Your task to perform on an android device: Search for Italian restaurants on Maps Image 0: 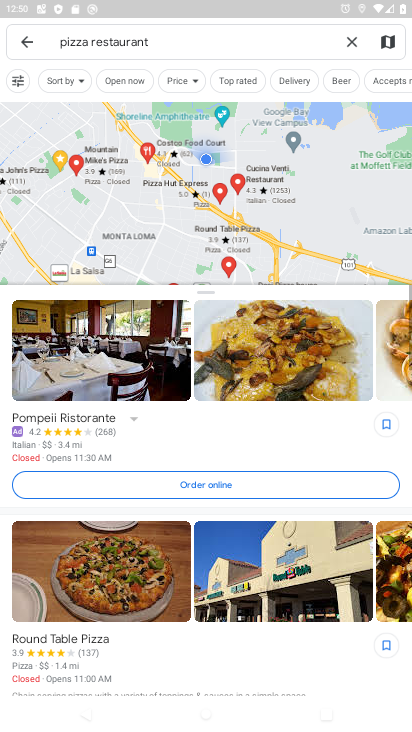
Step 0: press home button
Your task to perform on an android device: Search for Italian restaurants on Maps Image 1: 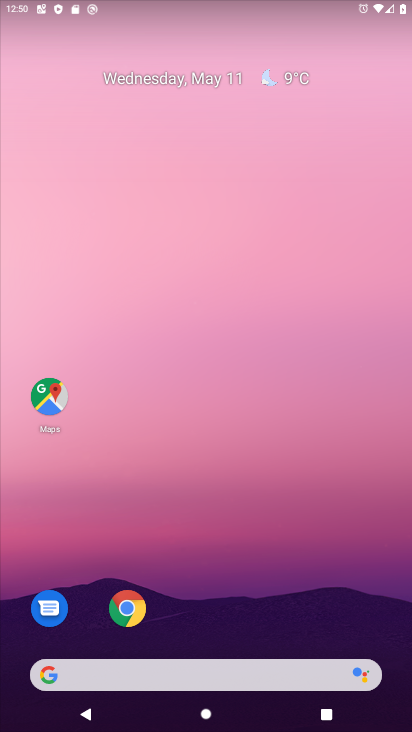
Step 1: drag from (175, 683) to (219, 372)
Your task to perform on an android device: Search for Italian restaurants on Maps Image 2: 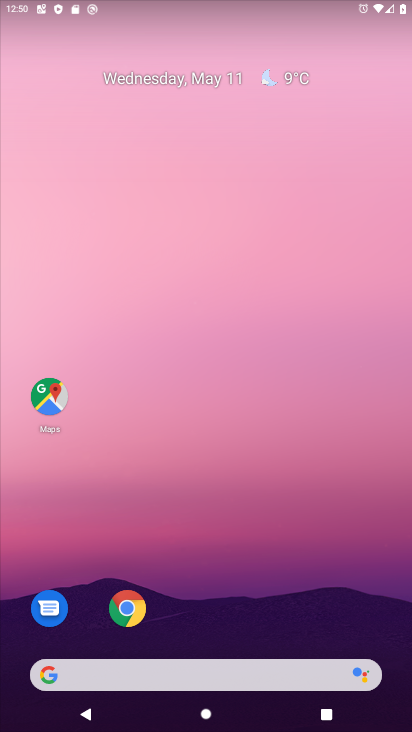
Step 2: drag from (235, 698) to (277, 524)
Your task to perform on an android device: Search for Italian restaurants on Maps Image 3: 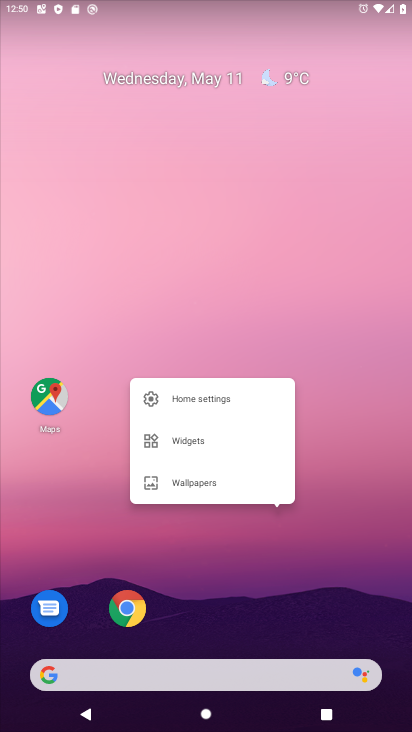
Step 3: drag from (271, 626) to (239, 311)
Your task to perform on an android device: Search for Italian restaurants on Maps Image 4: 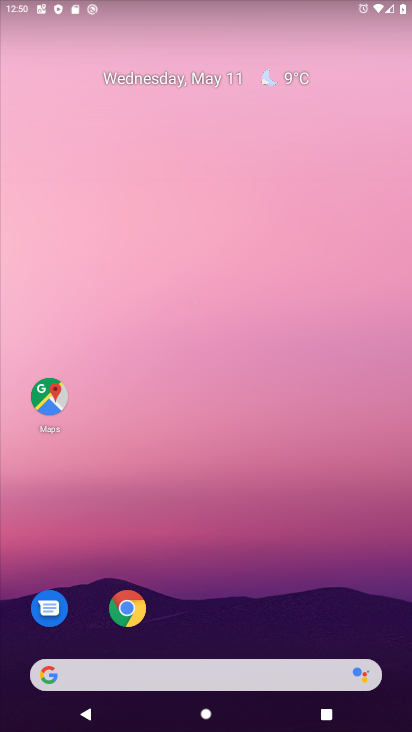
Step 4: drag from (182, 628) to (236, 152)
Your task to perform on an android device: Search for Italian restaurants on Maps Image 5: 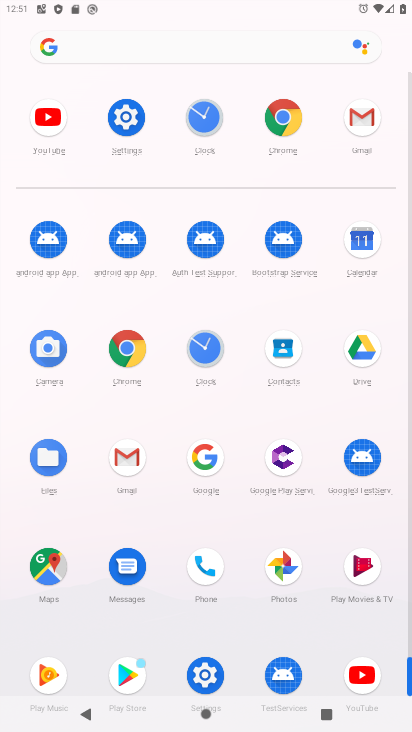
Step 5: click (60, 570)
Your task to perform on an android device: Search for Italian restaurants on Maps Image 6: 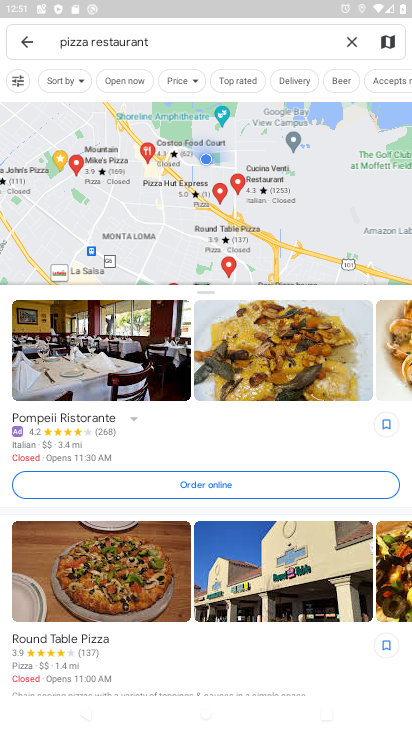
Step 6: click (345, 44)
Your task to perform on an android device: Search for Italian restaurants on Maps Image 7: 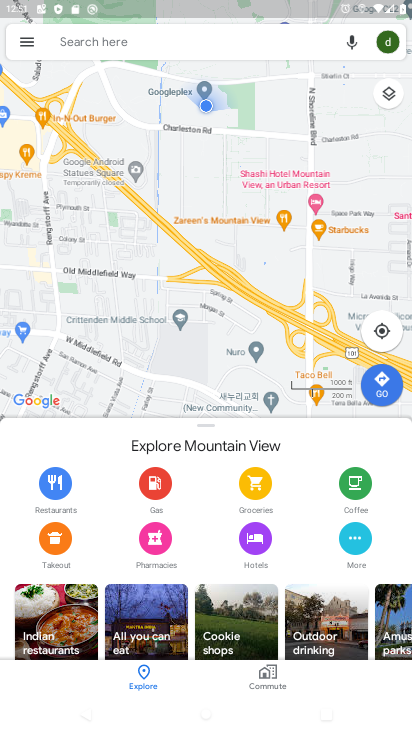
Step 7: click (267, 44)
Your task to perform on an android device: Search for Italian restaurants on Maps Image 8: 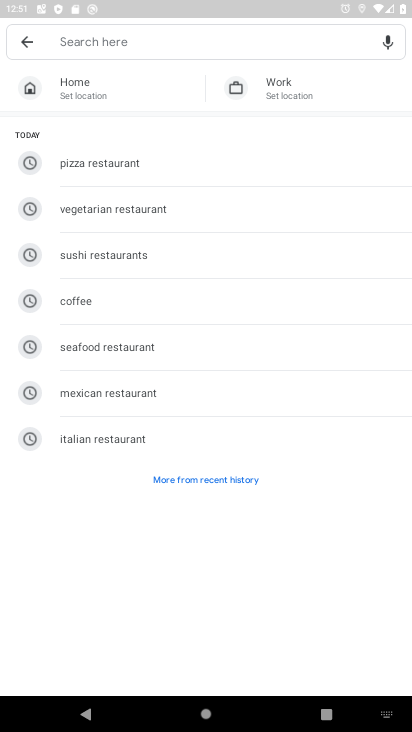
Step 8: click (100, 440)
Your task to perform on an android device: Search for Italian restaurants on Maps Image 9: 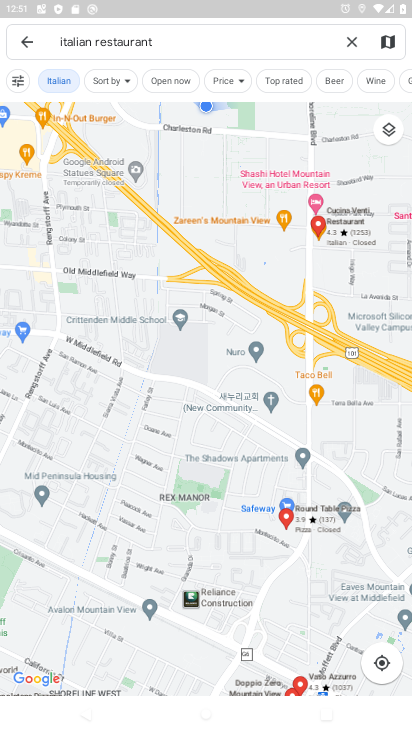
Step 9: task complete